Your task to perform on an android device: toggle sleep mode Image 0: 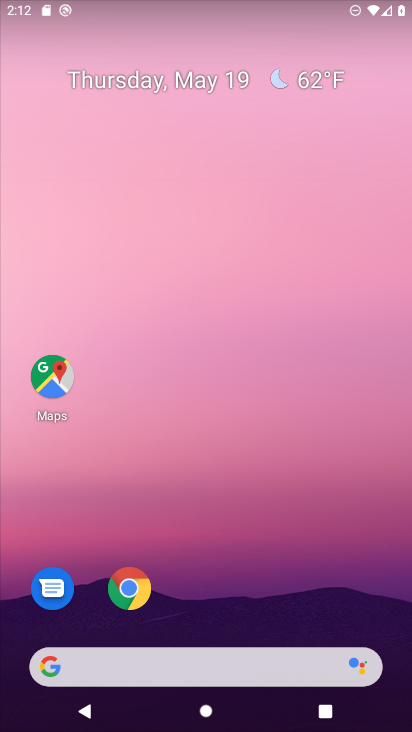
Step 0: drag from (266, 641) to (246, 55)
Your task to perform on an android device: toggle sleep mode Image 1: 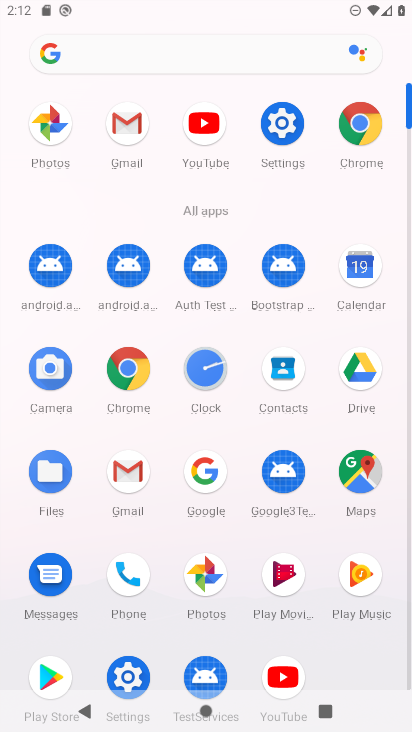
Step 1: click (280, 123)
Your task to perform on an android device: toggle sleep mode Image 2: 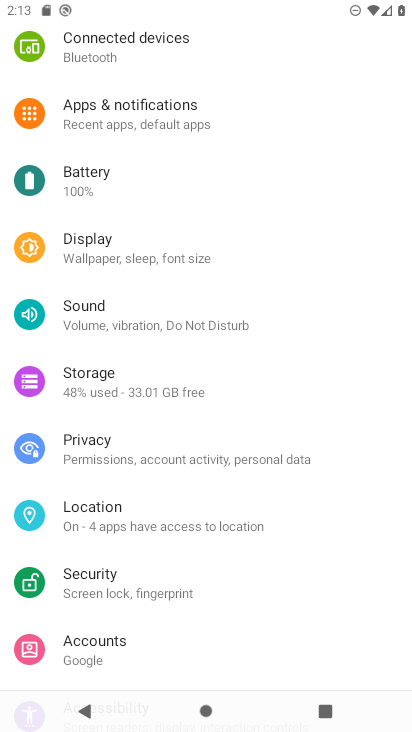
Step 2: click (106, 245)
Your task to perform on an android device: toggle sleep mode Image 3: 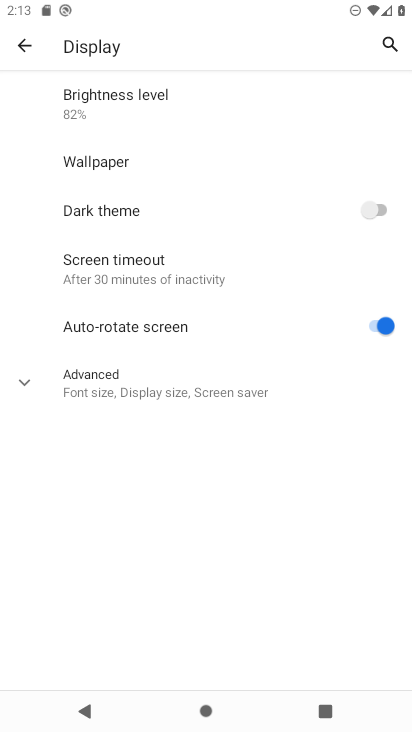
Step 3: click (26, 387)
Your task to perform on an android device: toggle sleep mode Image 4: 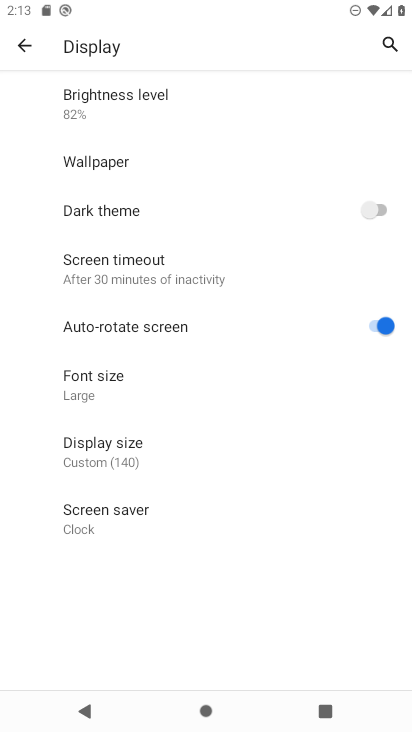
Step 4: task complete